Your task to perform on an android device: turn off picture-in-picture Image 0: 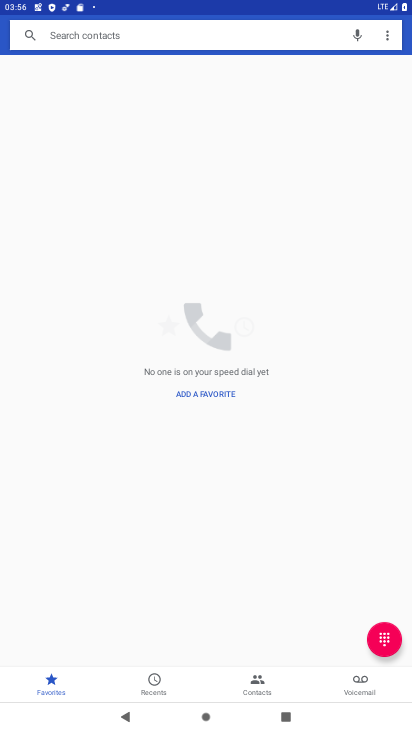
Step 0: press home button
Your task to perform on an android device: turn off picture-in-picture Image 1: 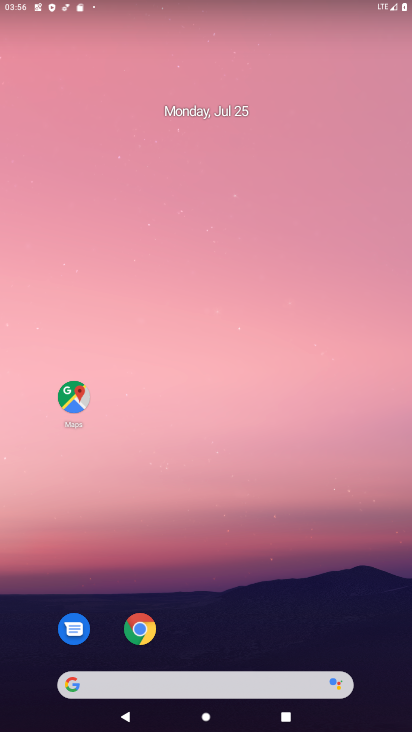
Step 1: click (140, 620)
Your task to perform on an android device: turn off picture-in-picture Image 2: 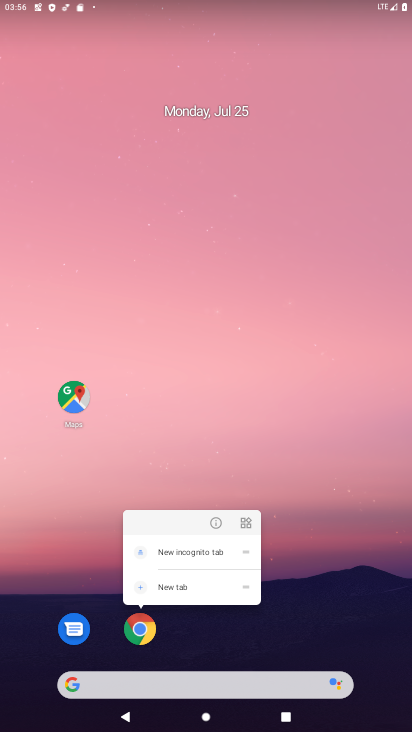
Step 2: click (211, 519)
Your task to perform on an android device: turn off picture-in-picture Image 3: 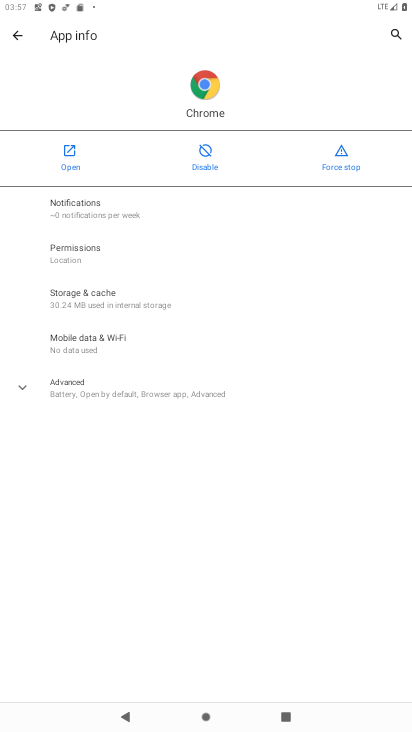
Step 3: click (18, 388)
Your task to perform on an android device: turn off picture-in-picture Image 4: 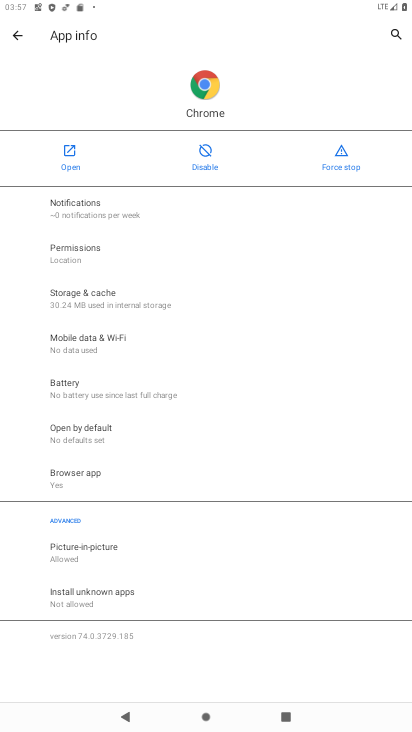
Step 4: click (46, 552)
Your task to perform on an android device: turn off picture-in-picture Image 5: 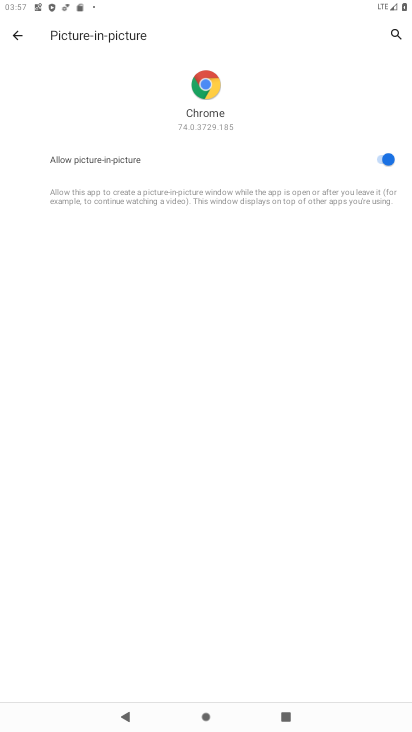
Step 5: click (391, 170)
Your task to perform on an android device: turn off picture-in-picture Image 6: 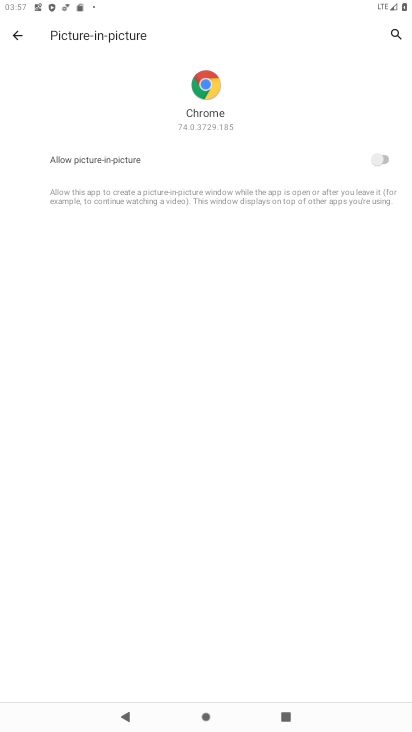
Step 6: task complete